Your task to perform on an android device: Open privacy settings Image 0: 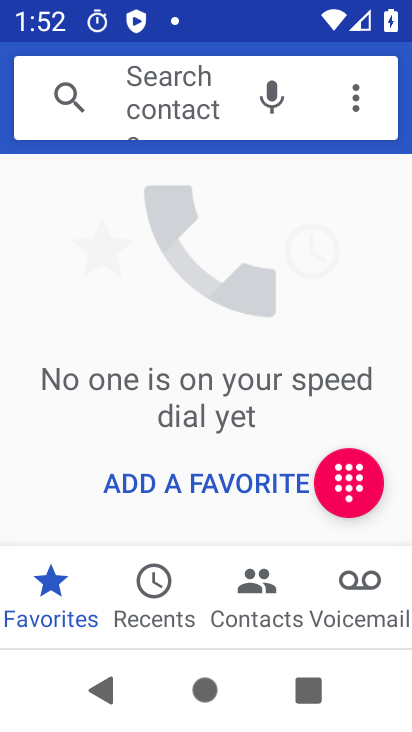
Step 0: press home button
Your task to perform on an android device: Open privacy settings Image 1: 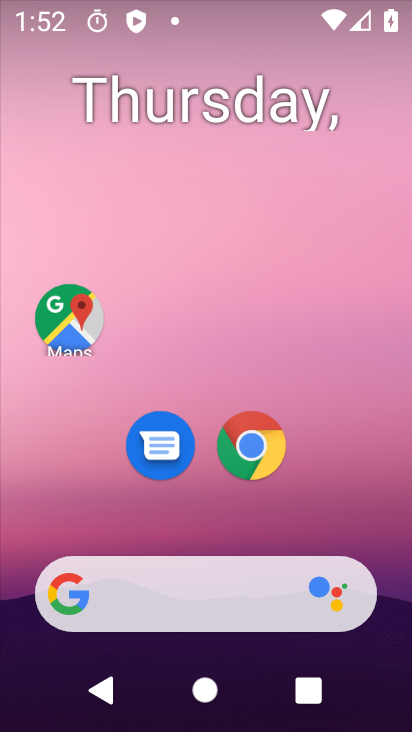
Step 1: drag from (167, 603) to (194, 3)
Your task to perform on an android device: Open privacy settings Image 2: 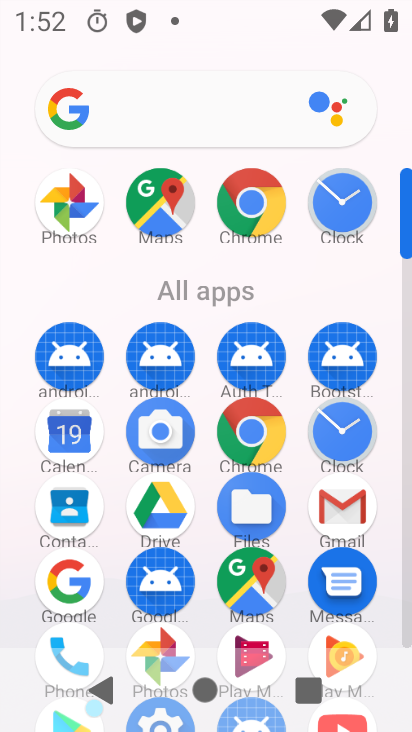
Step 2: drag from (191, 608) to (171, 4)
Your task to perform on an android device: Open privacy settings Image 3: 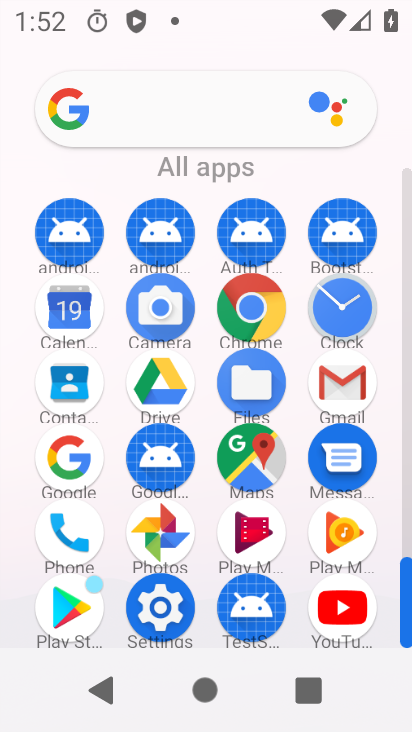
Step 3: click (156, 601)
Your task to perform on an android device: Open privacy settings Image 4: 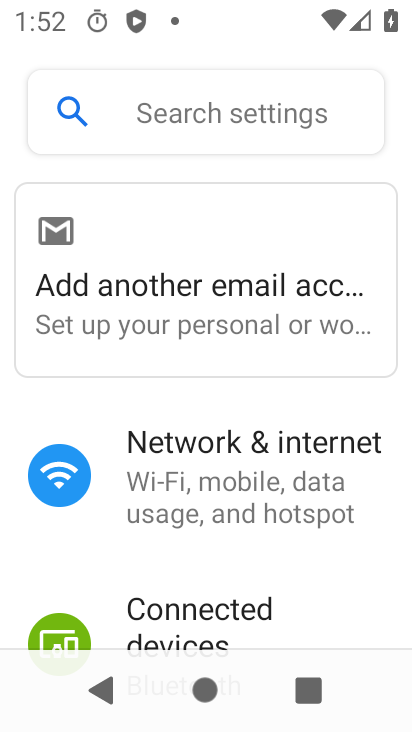
Step 4: drag from (227, 546) to (235, 89)
Your task to perform on an android device: Open privacy settings Image 5: 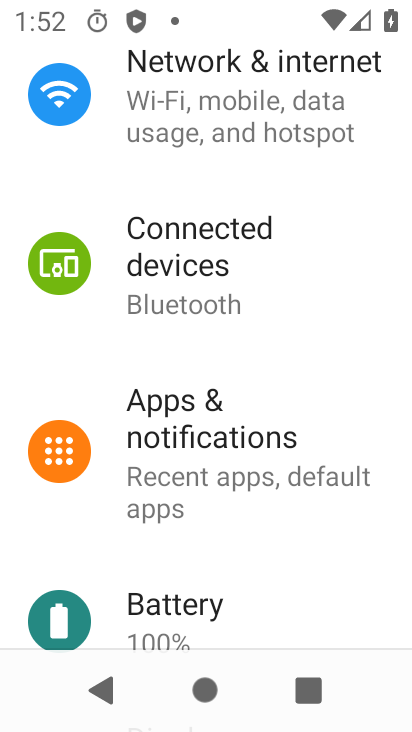
Step 5: drag from (205, 482) to (80, 37)
Your task to perform on an android device: Open privacy settings Image 6: 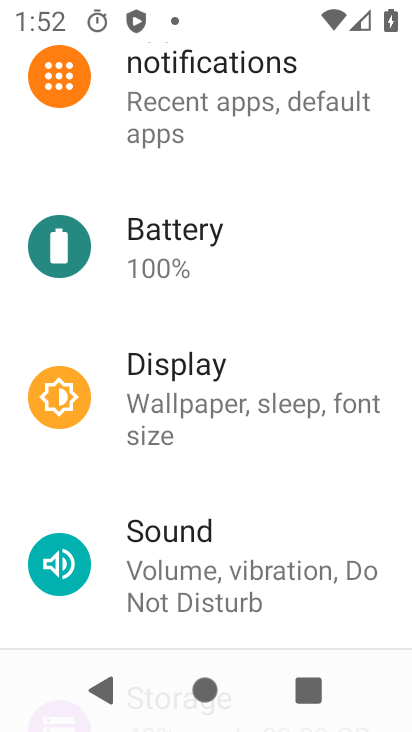
Step 6: drag from (147, 449) to (137, 121)
Your task to perform on an android device: Open privacy settings Image 7: 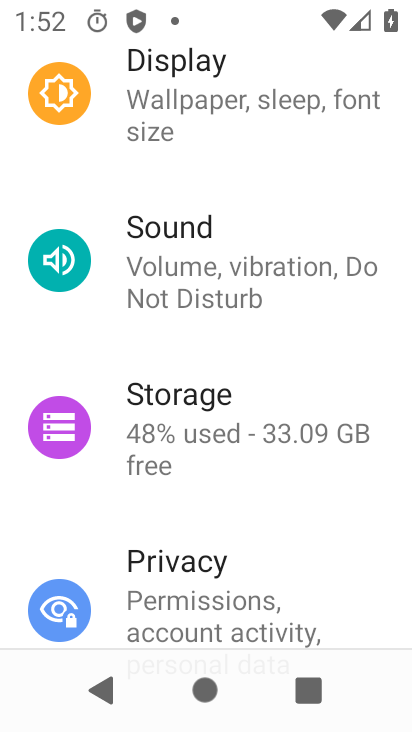
Step 7: click (174, 548)
Your task to perform on an android device: Open privacy settings Image 8: 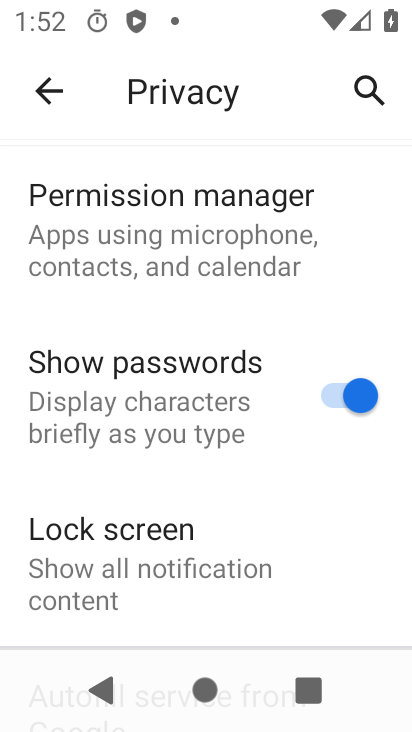
Step 8: task complete